Your task to perform on an android device: Search for a runner rug on Crate & Barrel Image 0: 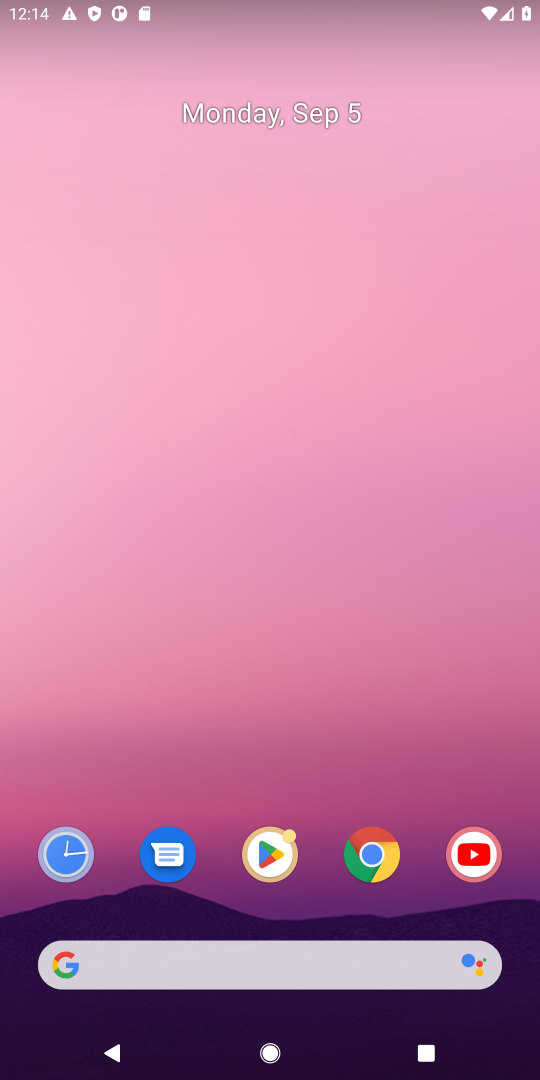
Step 0: press home button
Your task to perform on an android device: Search for a runner rug on Crate & Barrel Image 1: 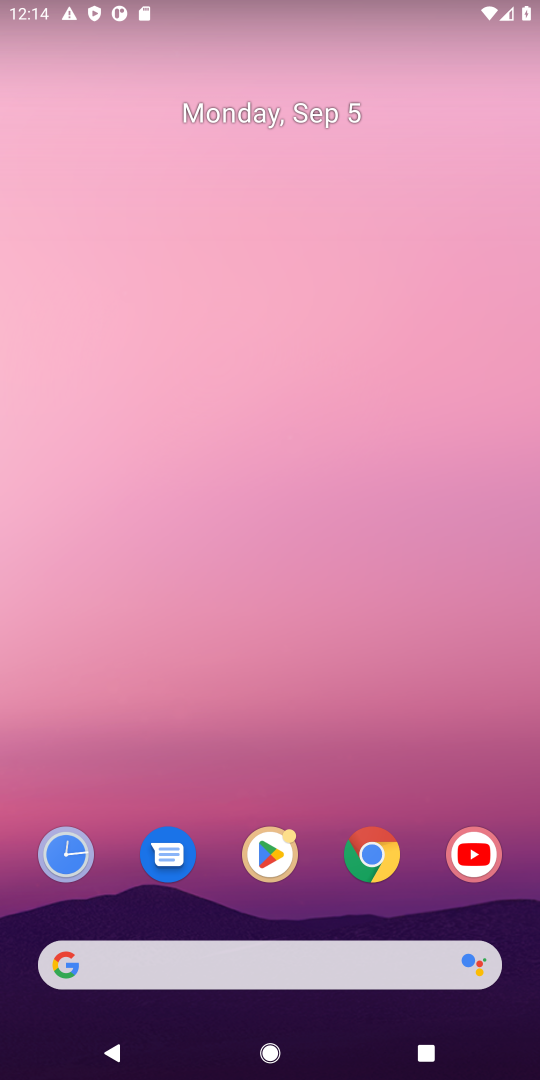
Step 1: click (250, 958)
Your task to perform on an android device: Search for a runner rug on Crate & Barrel Image 2: 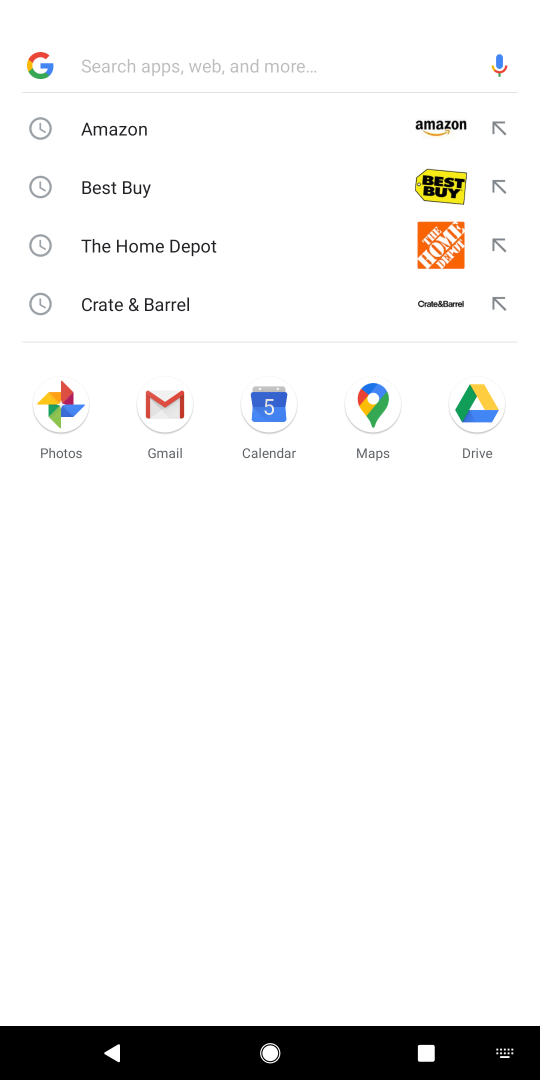
Step 2: type "crate barrel"
Your task to perform on an android device: Search for a runner rug on Crate & Barrel Image 3: 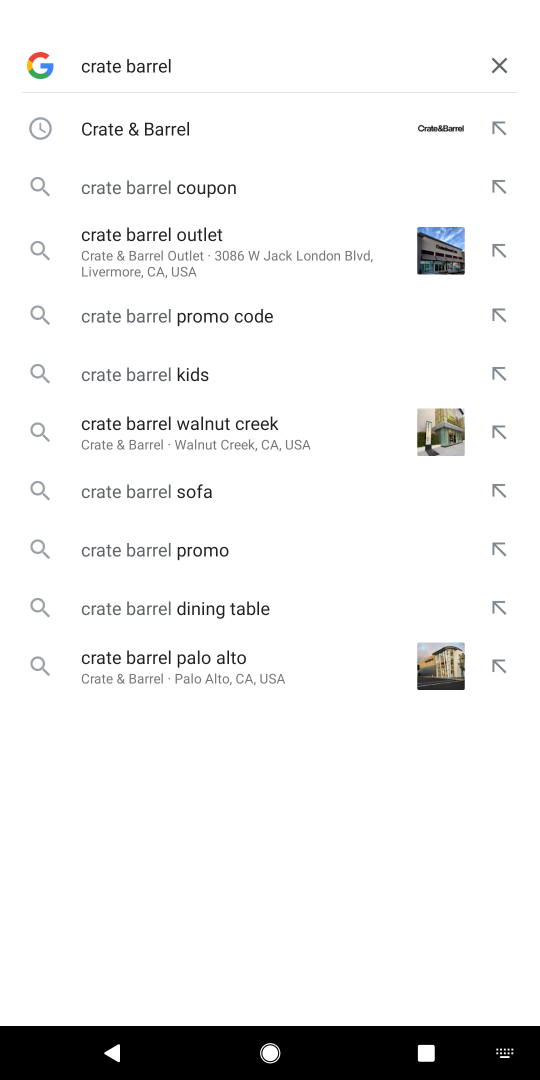
Step 3: press enter
Your task to perform on an android device: Search for a runner rug on Crate & Barrel Image 4: 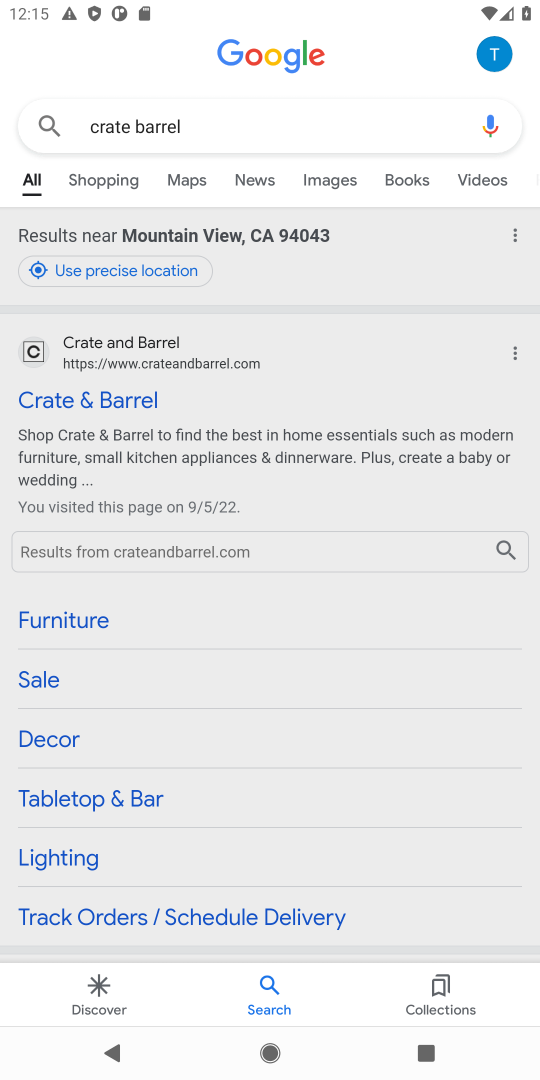
Step 4: click (109, 396)
Your task to perform on an android device: Search for a runner rug on Crate & Barrel Image 5: 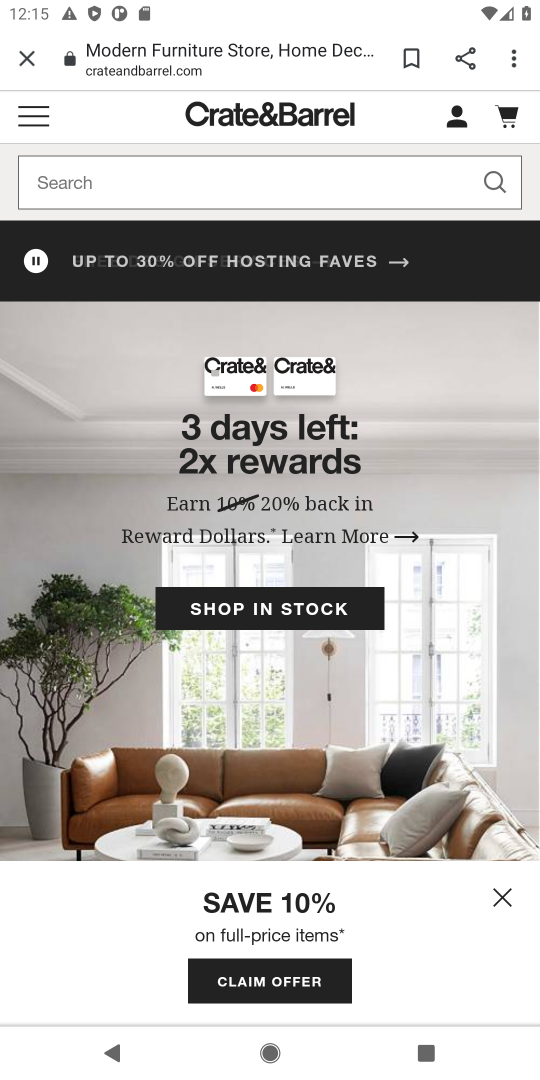
Step 5: click (332, 187)
Your task to perform on an android device: Search for a runner rug on Crate & Barrel Image 6: 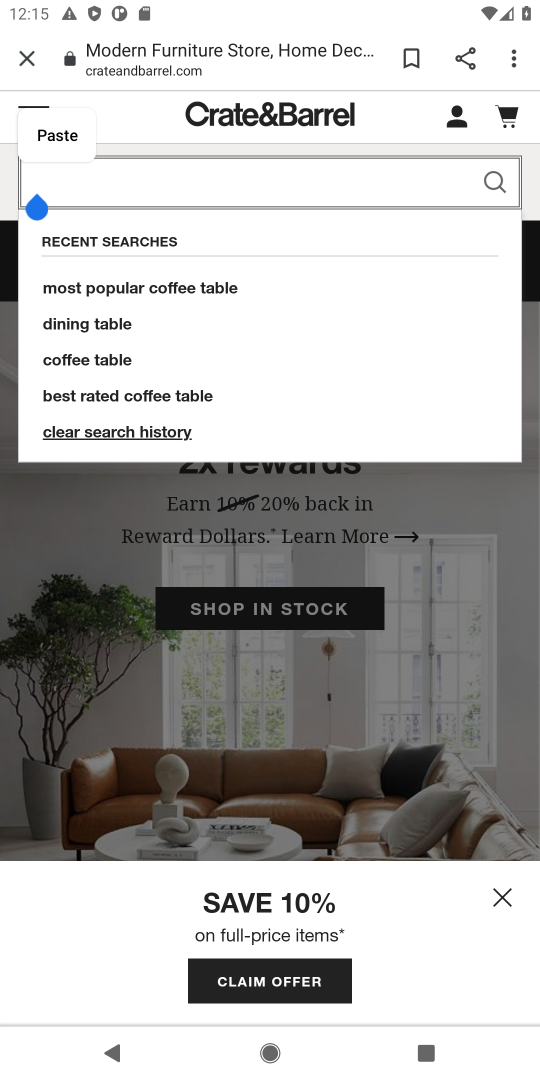
Step 6: press enter
Your task to perform on an android device: Search for a runner rug on Crate & Barrel Image 7: 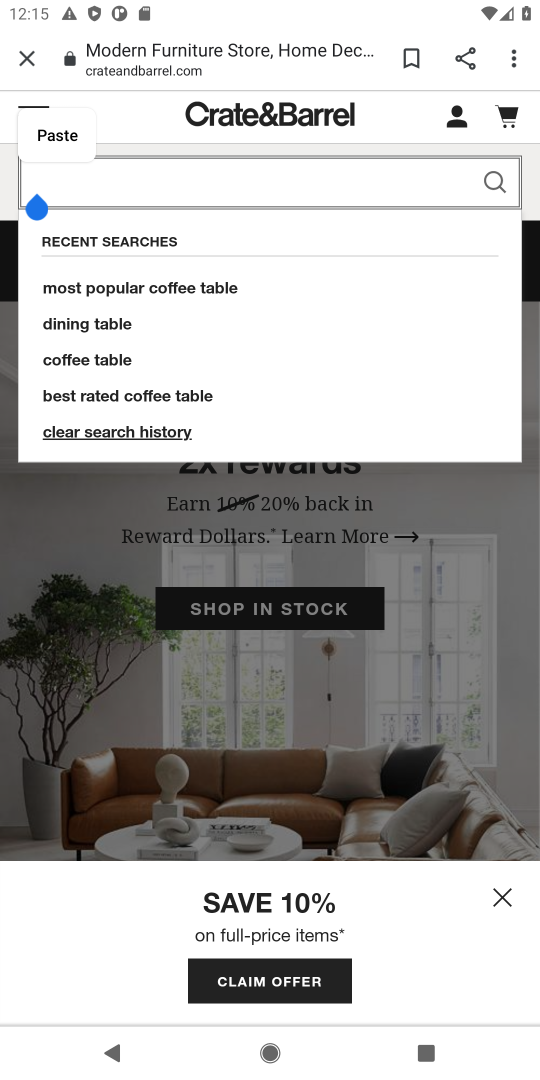
Step 7: type "runner rug"
Your task to perform on an android device: Search for a runner rug on Crate & Barrel Image 8: 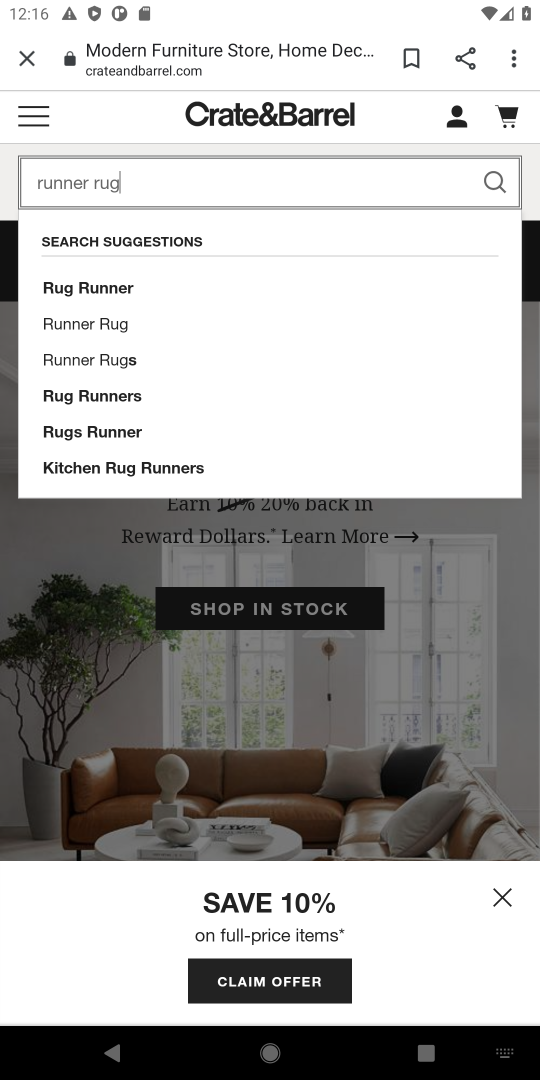
Step 8: click (104, 354)
Your task to perform on an android device: Search for a runner rug on Crate & Barrel Image 9: 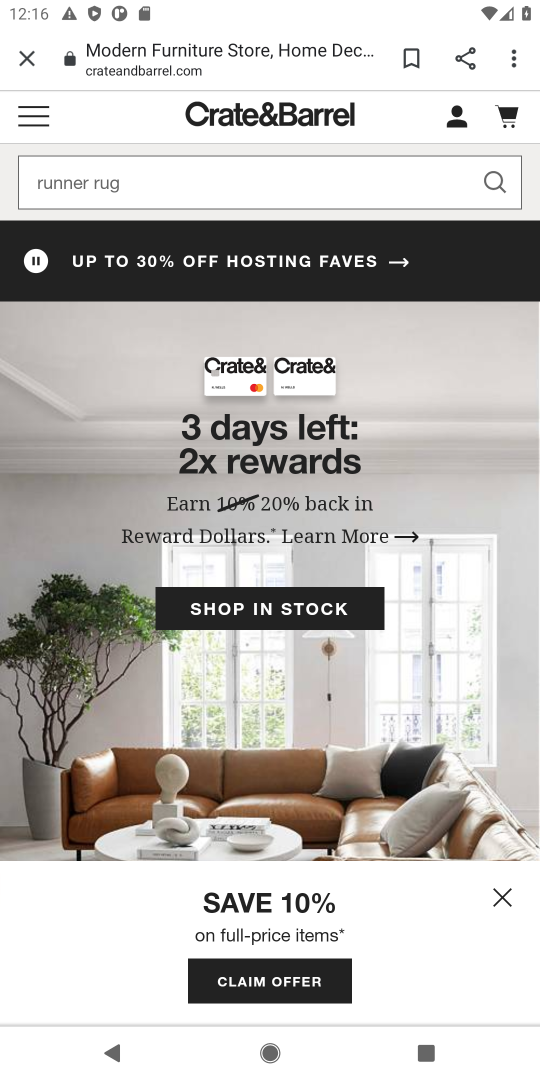
Step 9: click (502, 168)
Your task to perform on an android device: Search for a runner rug on Crate & Barrel Image 10: 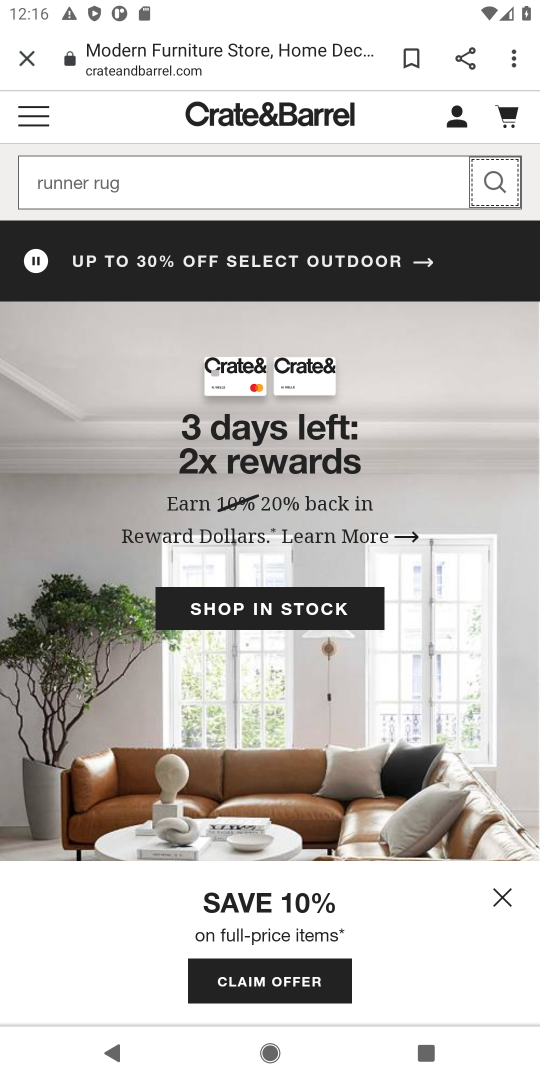
Step 10: click (484, 172)
Your task to perform on an android device: Search for a runner rug on Crate & Barrel Image 11: 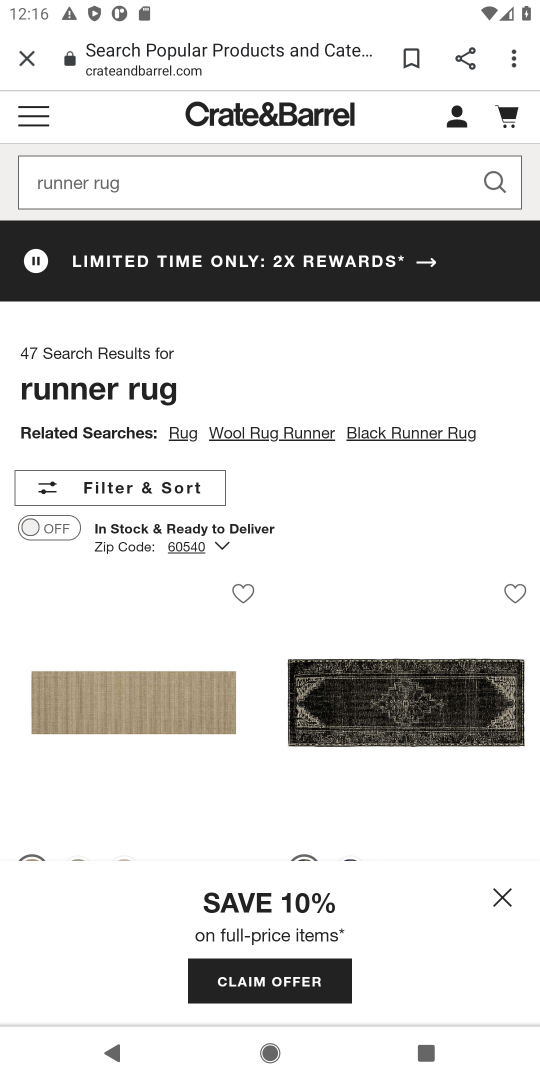
Step 11: click (505, 891)
Your task to perform on an android device: Search for a runner rug on Crate & Barrel Image 12: 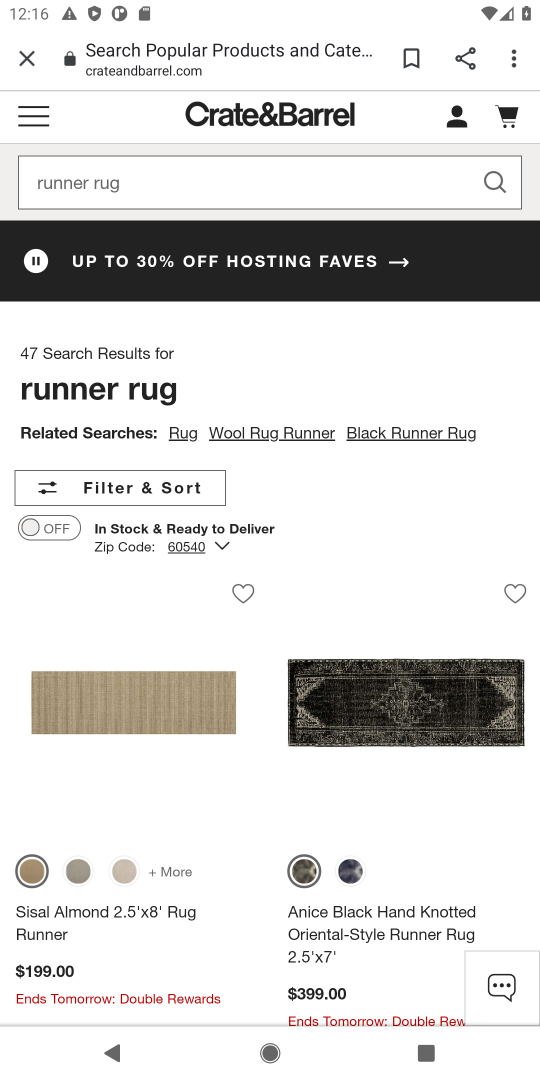
Step 12: task complete